Your task to perform on an android device: Open Yahoo.com Image 0: 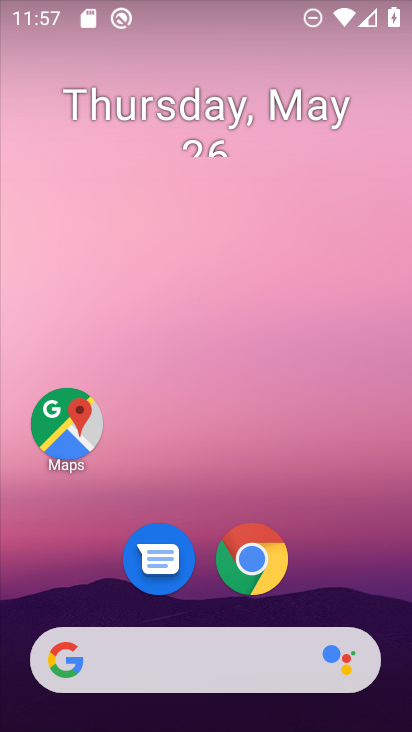
Step 0: click (246, 570)
Your task to perform on an android device: Open Yahoo.com Image 1: 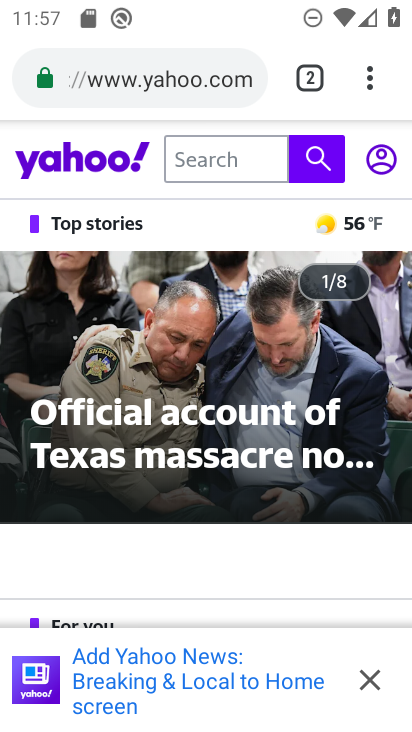
Step 1: task complete